Your task to perform on an android device: Go to accessibility settings Image 0: 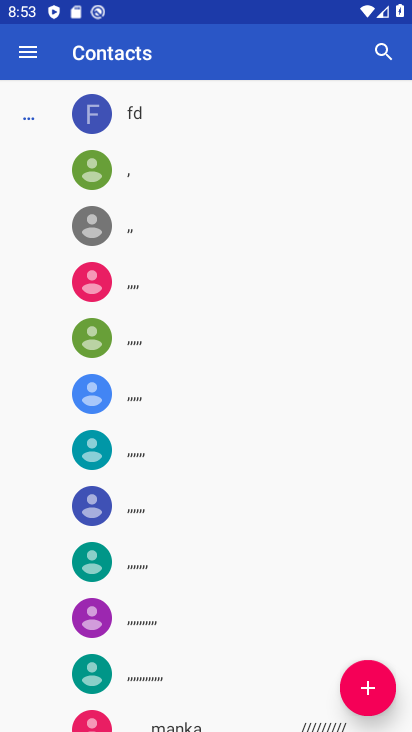
Step 0: press home button
Your task to perform on an android device: Go to accessibility settings Image 1: 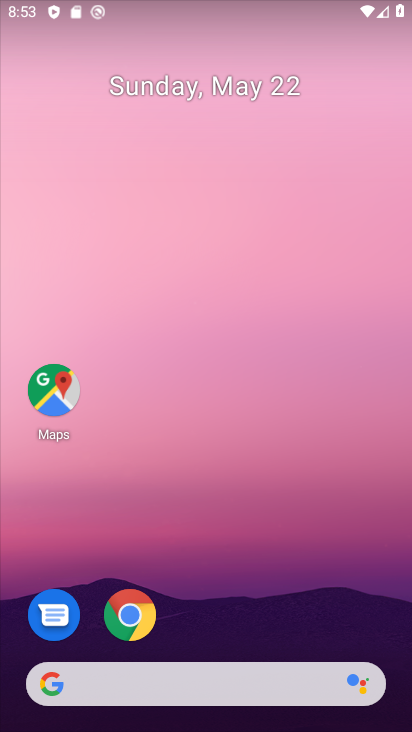
Step 1: drag from (211, 613) to (237, 328)
Your task to perform on an android device: Go to accessibility settings Image 2: 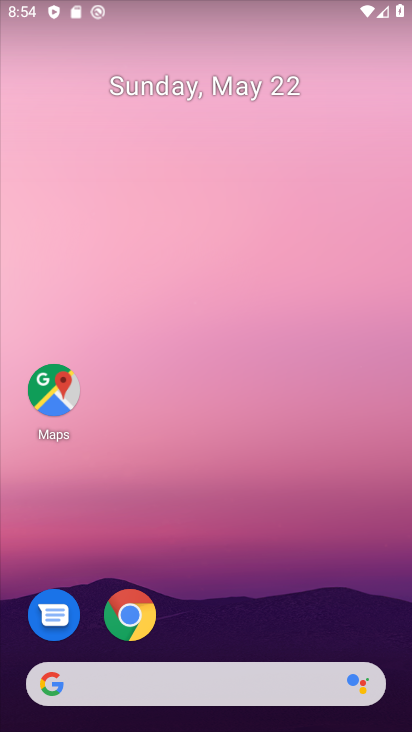
Step 2: drag from (247, 637) to (261, 255)
Your task to perform on an android device: Go to accessibility settings Image 3: 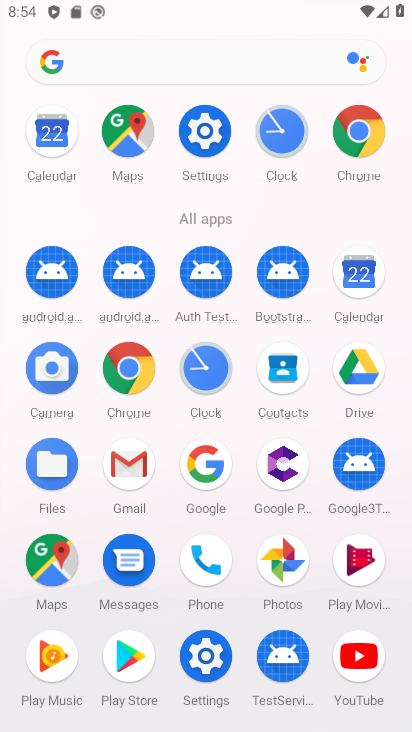
Step 3: click (201, 122)
Your task to perform on an android device: Go to accessibility settings Image 4: 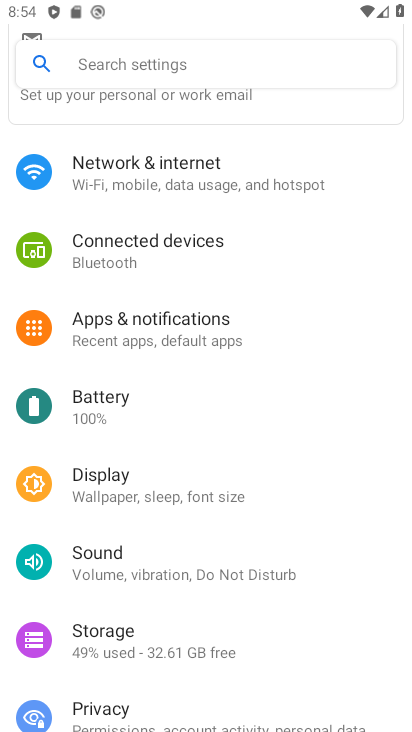
Step 4: drag from (208, 514) to (307, 96)
Your task to perform on an android device: Go to accessibility settings Image 5: 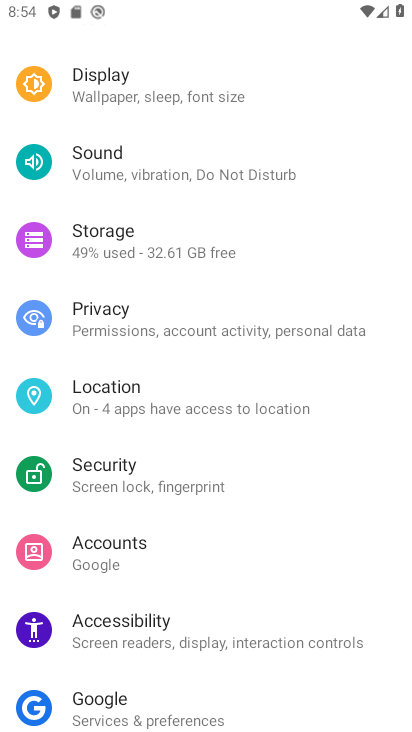
Step 5: drag from (212, 522) to (241, 123)
Your task to perform on an android device: Go to accessibility settings Image 6: 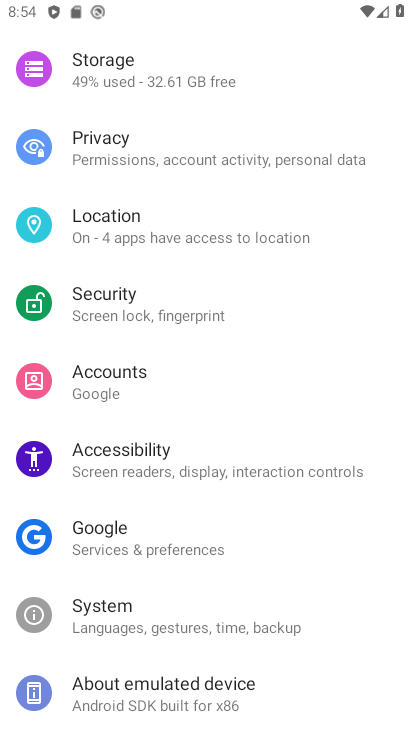
Step 6: click (204, 425)
Your task to perform on an android device: Go to accessibility settings Image 7: 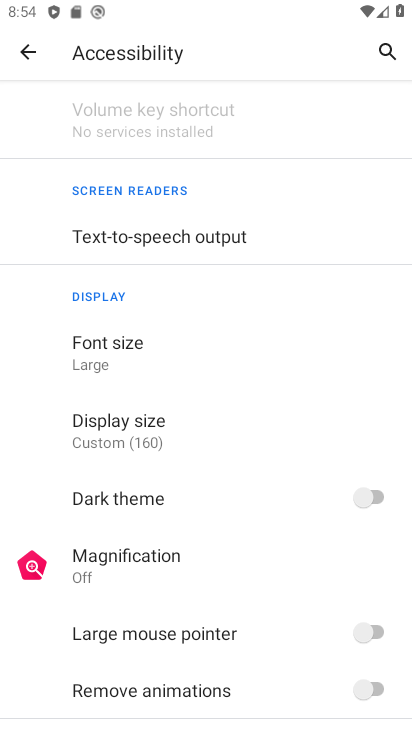
Step 7: task complete